Your task to perform on an android device: toggle data saver in the chrome app Image 0: 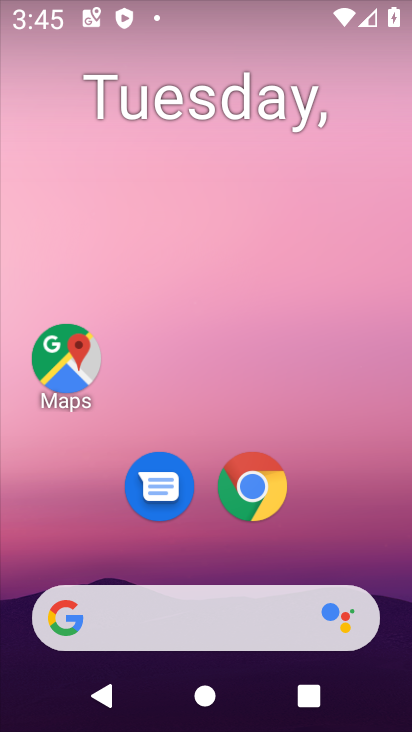
Step 0: click (239, 479)
Your task to perform on an android device: toggle data saver in the chrome app Image 1: 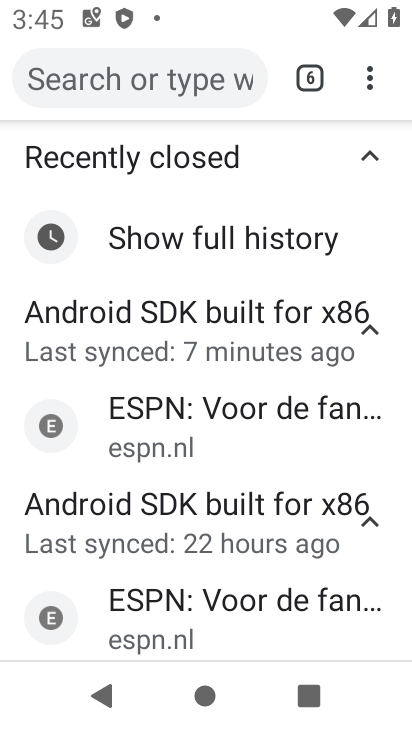
Step 1: drag from (372, 74) to (151, 536)
Your task to perform on an android device: toggle data saver in the chrome app Image 2: 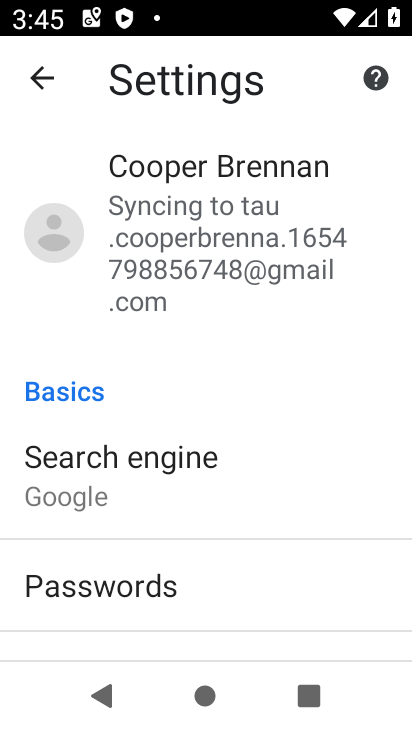
Step 2: drag from (98, 573) to (235, 146)
Your task to perform on an android device: toggle data saver in the chrome app Image 3: 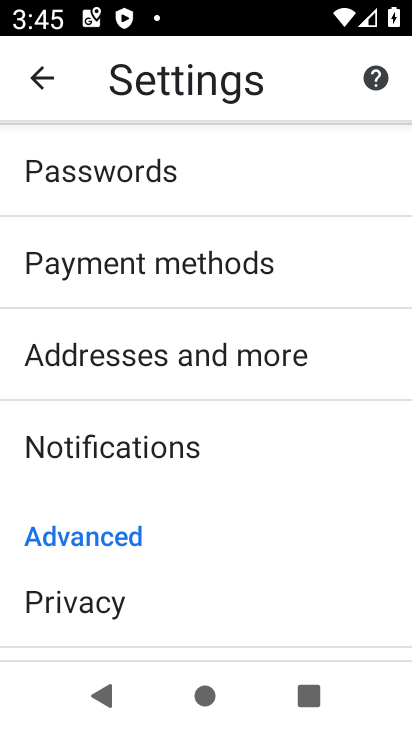
Step 3: drag from (112, 614) to (270, 98)
Your task to perform on an android device: toggle data saver in the chrome app Image 4: 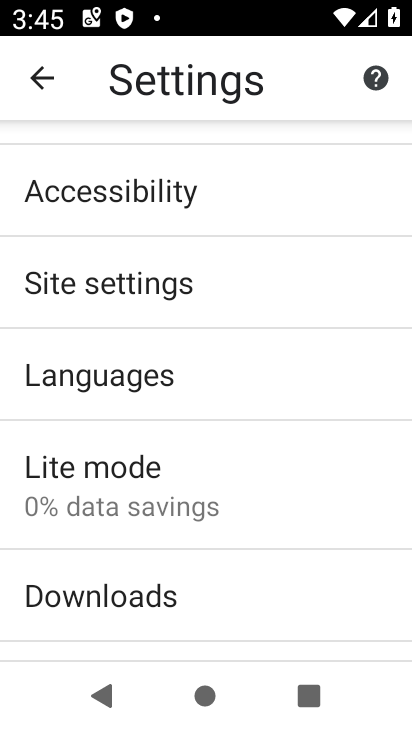
Step 4: click (98, 475)
Your task to perform on an android device: toggle data saver in the chrome app Image 5: 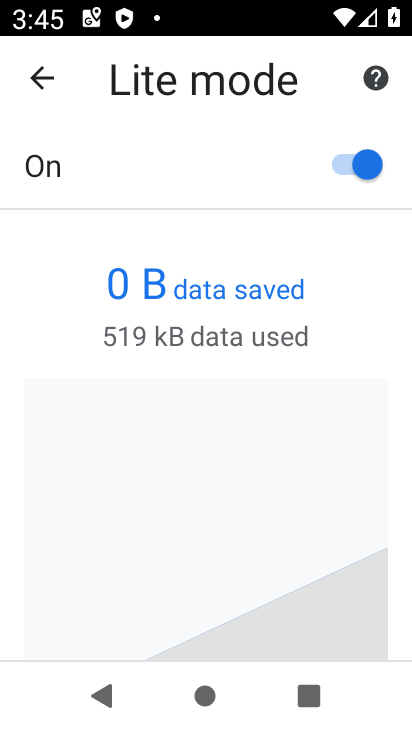
Step 5: click (346, 167)
Your task to perform on an android device: toggle data saver in the chrome app Image 6: 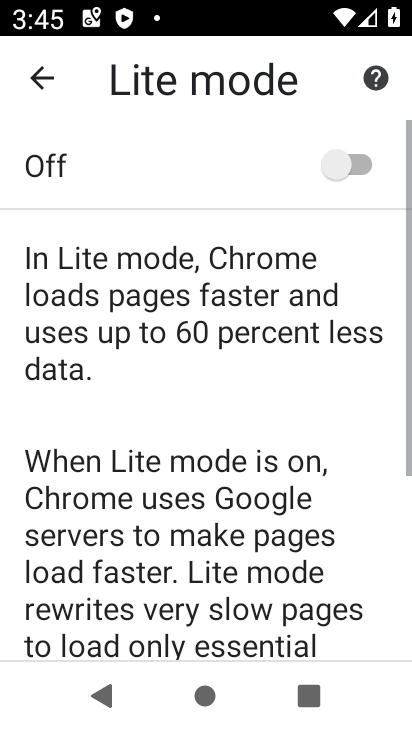
Step 6: task complete